Your task to perform on an android device: visit the assistant section in the google photos Image 0: 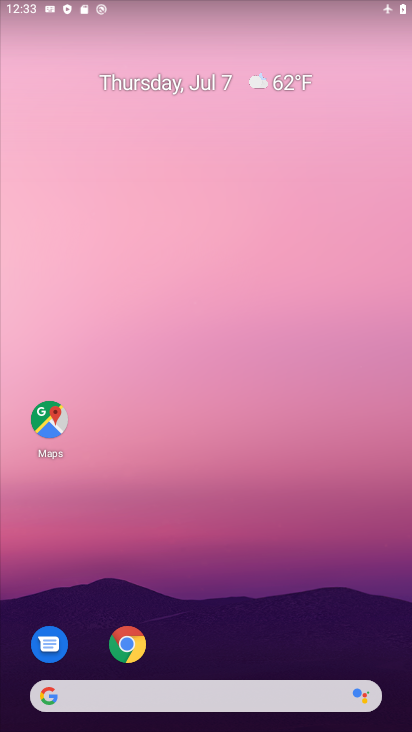
Step 0: drag from (48, 546) to (291, 102)
Your task to perform on an android device: visit the assistant section in the google photos Image 1: 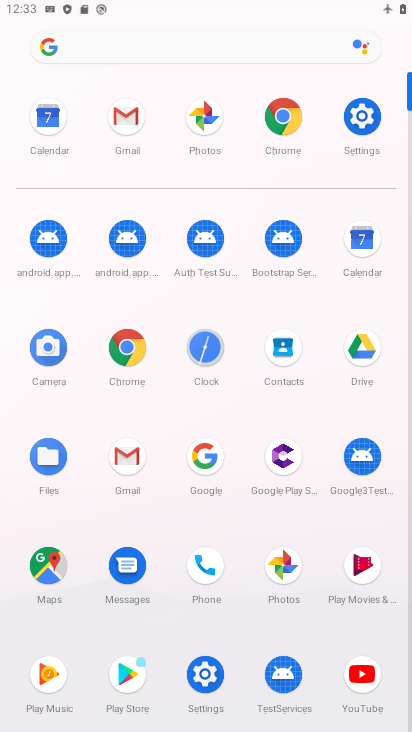
Step 1: click (294, 568)
Your task to perform on an android device: visit the assistant section in the google photos Image 2: 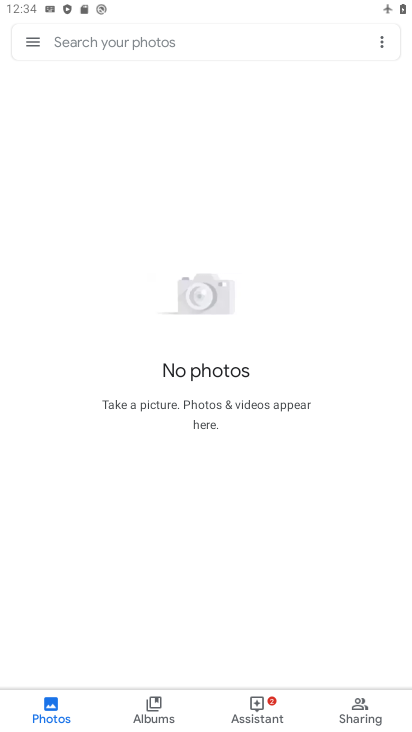
Step 2: click (254, 712)
Your task to perform on an android device: visit the assistant section in the google photos Image 3: 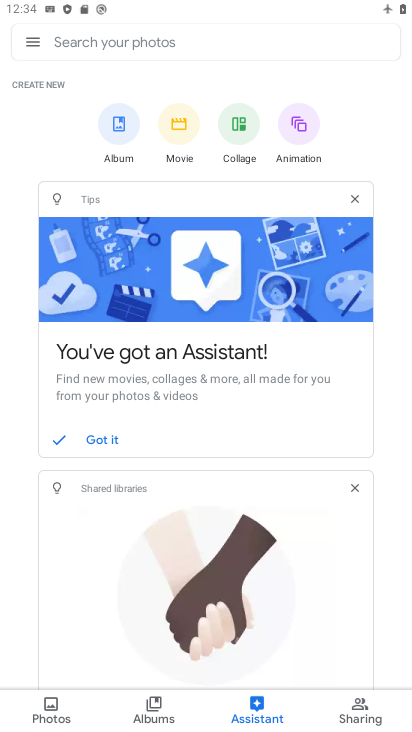
Step 3: task complete